Your task to perform on an android device: toggle javascript in the chrome app Image 0: 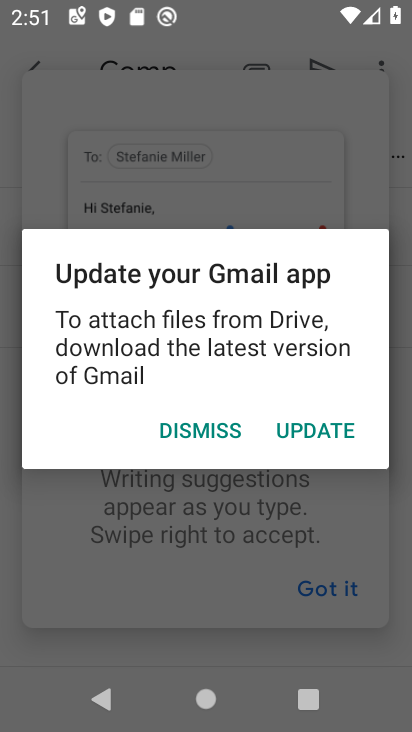
Step 0: press home button
Your task to perform on an android device: toggle javascript in the chrome app Image 1: 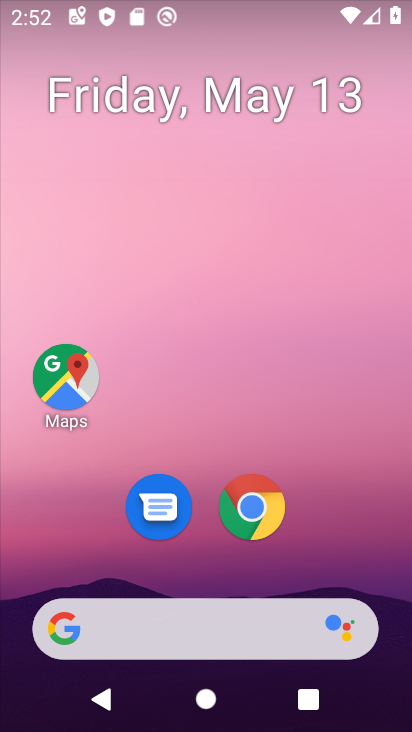
Step 1: click (253, 504)
Your task to perform on an android device: toggle javascript in the chrome app Image 2: 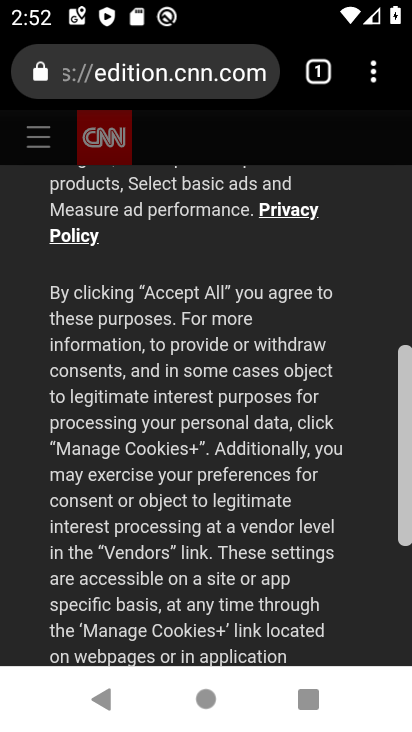
Step 2: click (371, 66)
Your task to perform on an android device: toggle javascript in the chrome app Image 3: 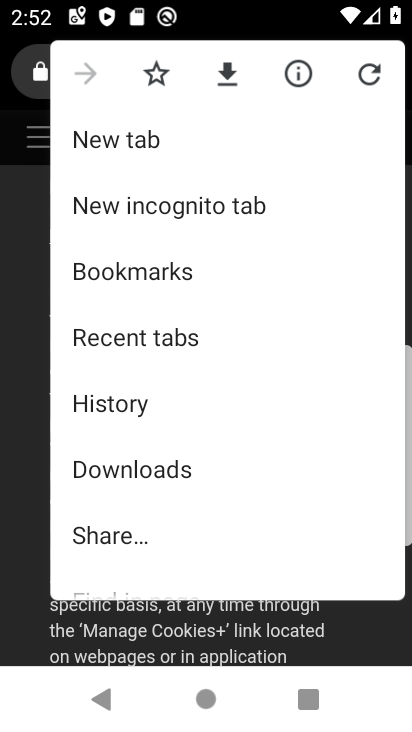
Step 3: drag from (117, 449) to (111, 104)
Your task to perform on an android device: toggle javascript in the chrome app Image 4: 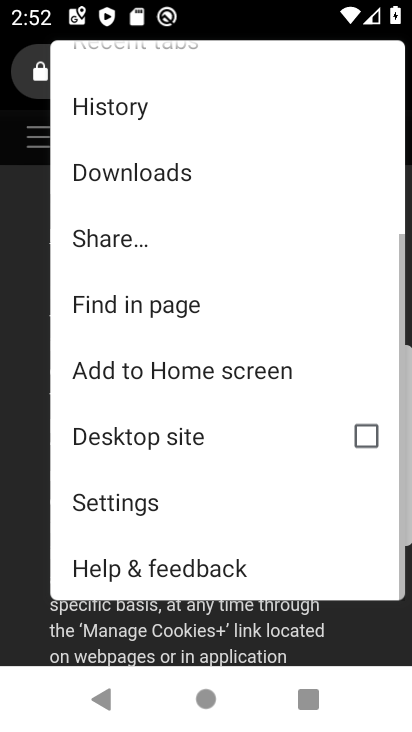
Step 4: click (137, 499)
Your task to perform on an android device: toggle javascript in the chrome app Image 5: 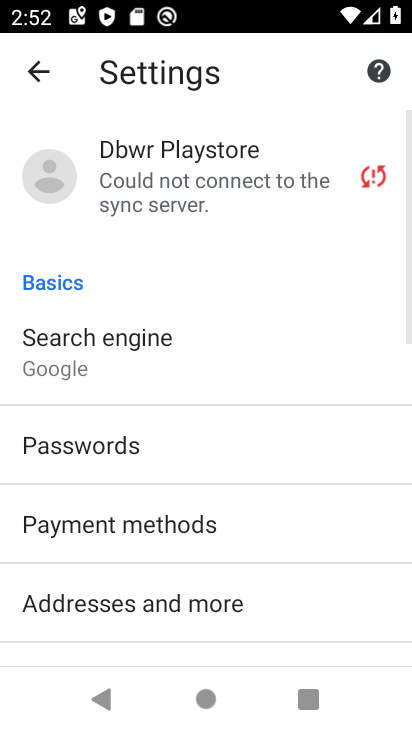
Step 5: drag from (181, 565) to (192, 137)
Your task to perform on an android device: toggle javascript in the chrome app Image 6: 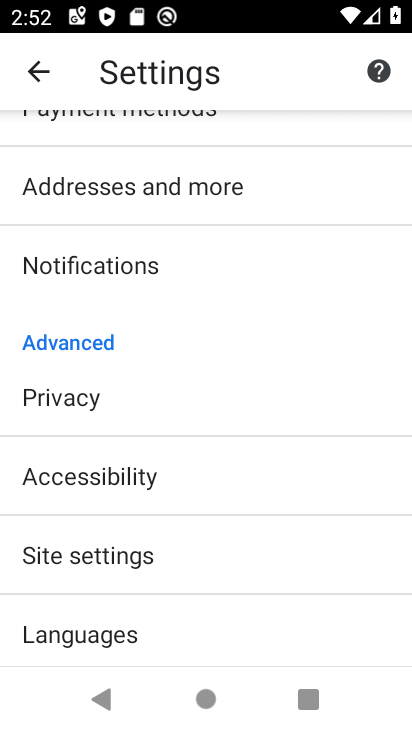
Step 6: drag from (123, 576) to (123, 334)
Your task to perform on an android device: toggle javascript in the chrome app Image 7: 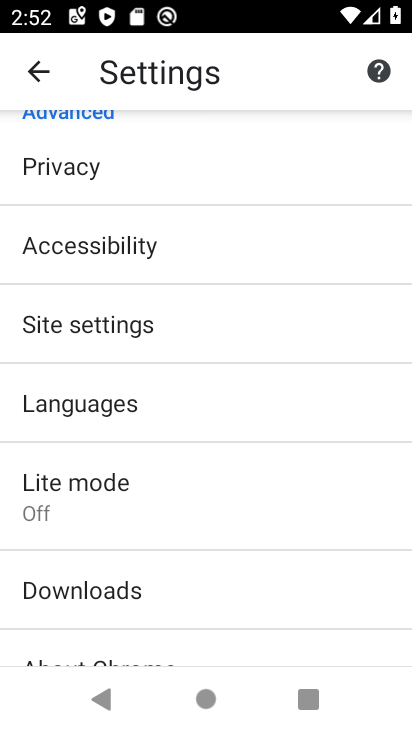
Step 7: drag from (103, 289) to (103, 211)
Your task to perform on an android device: toggle javascript in the chrome app Image 8: 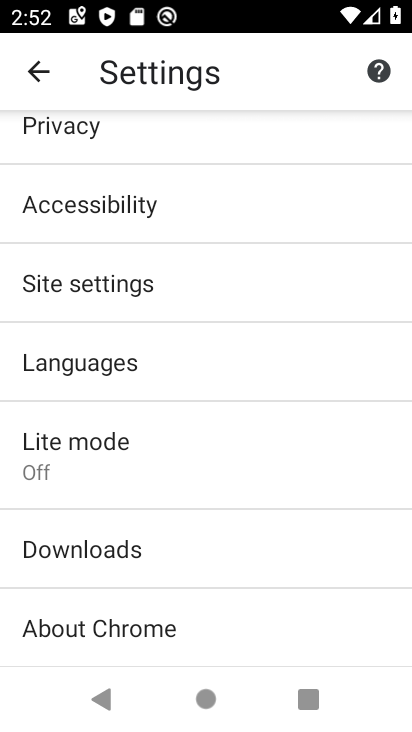
Step 8: drag from (107, 604) to (110, 247)
Your task to perform on an android device: toggle javascript in the chrome app Image 9: 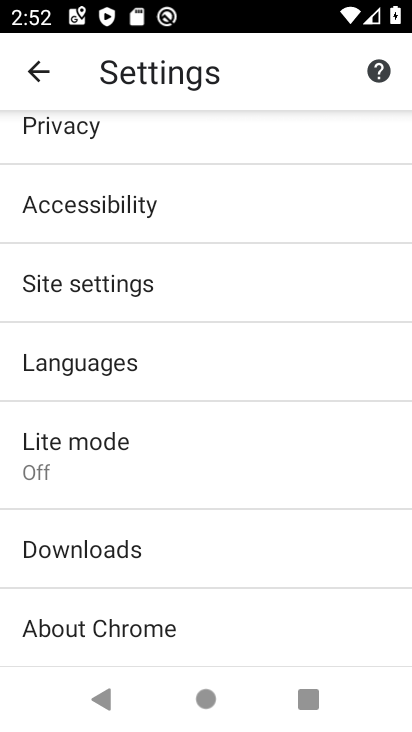
Step 9: drag from (160, 589) to (174, 369)
Your task to perform on an android device: toggle javascript in the chrome app Image 10: 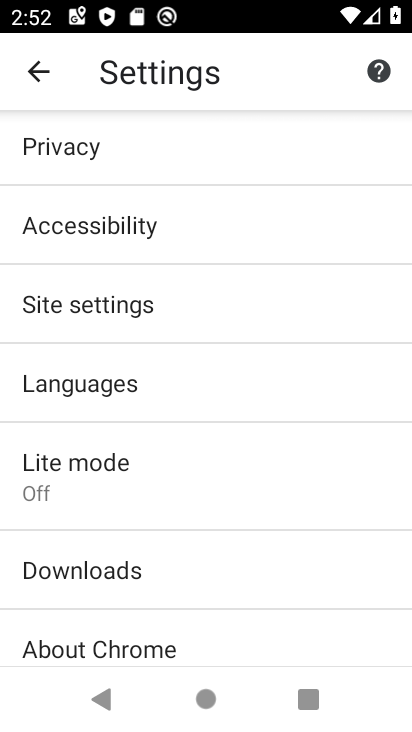
Step 10: click (145, 315)
Your task to perform on an android device: toggle javascript in the chrome app Image 11: 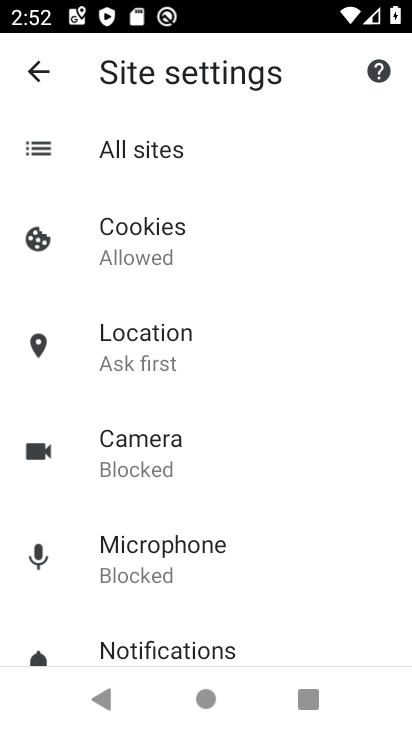
Step 11: drag from (180, 568) to (195, 227)
Your task to perform on an android device: toggle javascript in the chrome app Image 12: 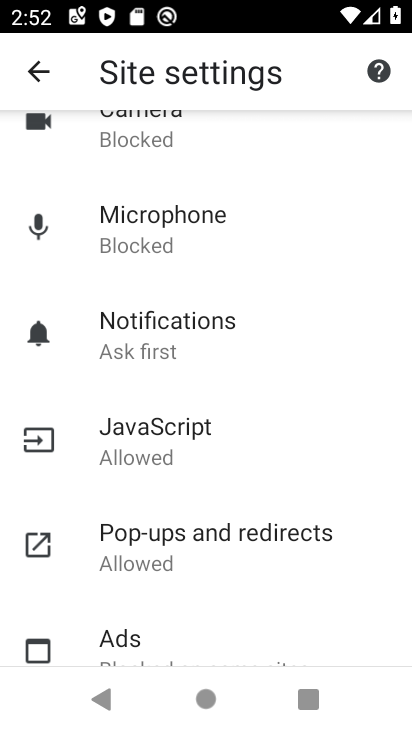
Step 12: click (209, 430)
Your task to perform on an android device: toggle javascript in the chrome app Image 13: 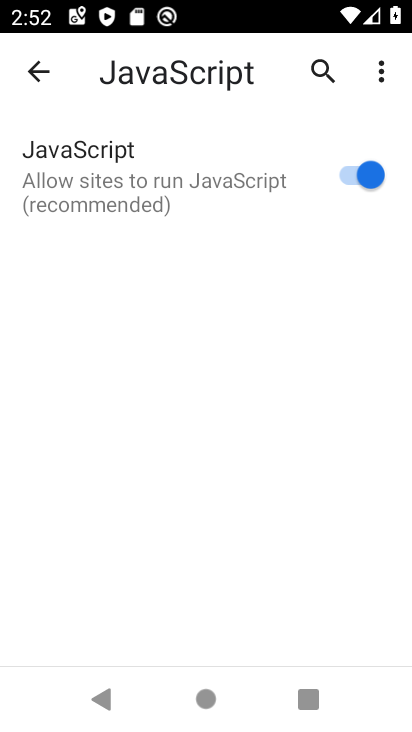
Step 13: click (376, 171)
Your task to perform on an android device: toggle javascript in the chrome app Image 14: 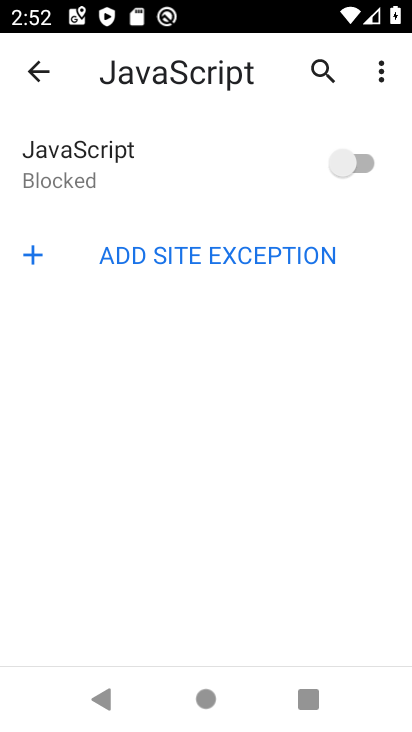
Step 14: task complete